Your task to perform on an android device: Go to Yahoo.com Image 0: 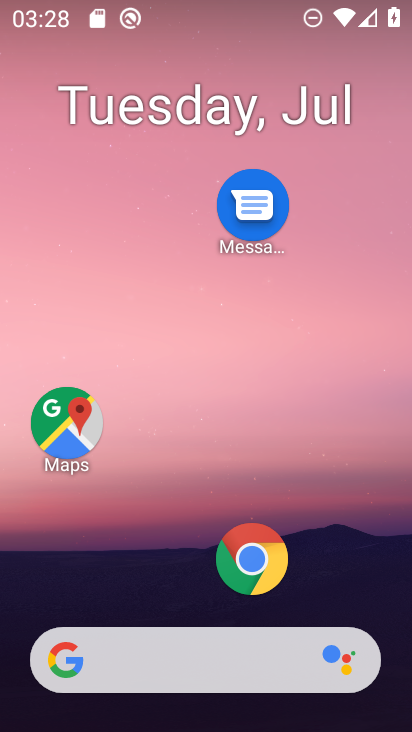
Step 0: click (238, 556)
Your task to perform on an android device: Go to Yahoo.com Image 1: 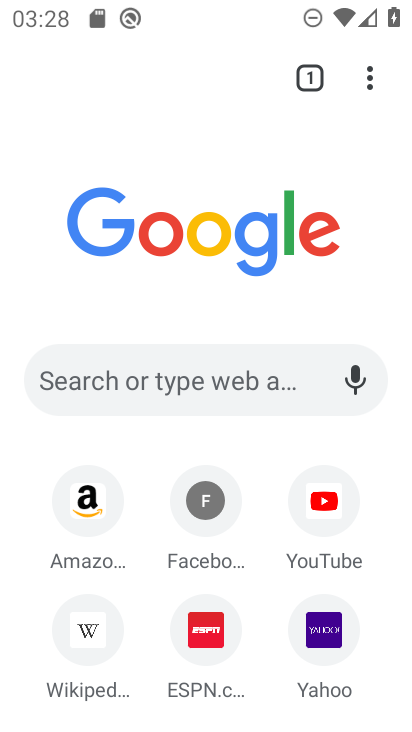
Step 1: click (336, 639)
Your task to perform on an android device: Go to Yahoo.com Image 2: 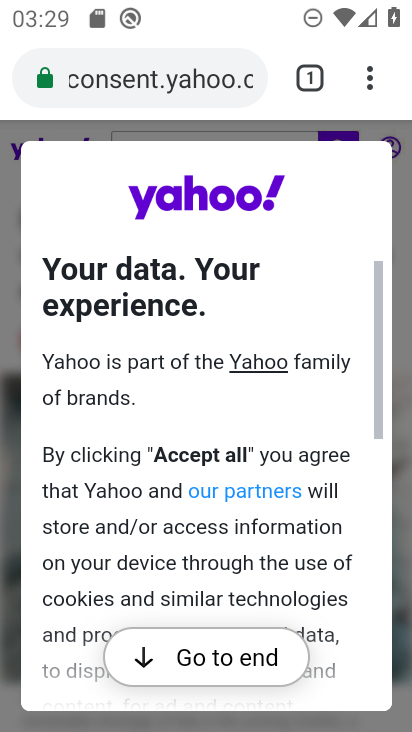
Step 2: task complete